Your task to perform on an android device: turn off location history Image 0: 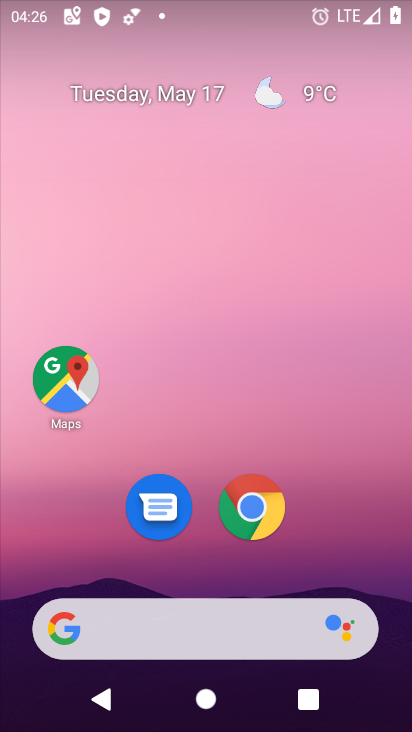
Step 0: drag from (331, 557) to (204, 42)
Your task to perform on an android device: turn off location history Image 1: 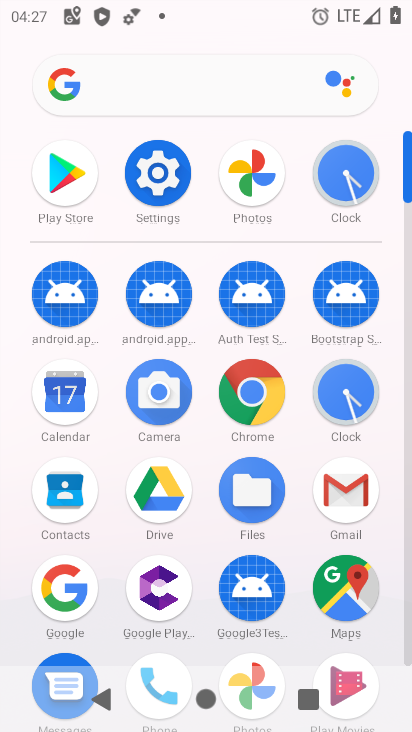
Step 1: click (163, 175)
Your task to perform on an android device: turn off location history Image 2: 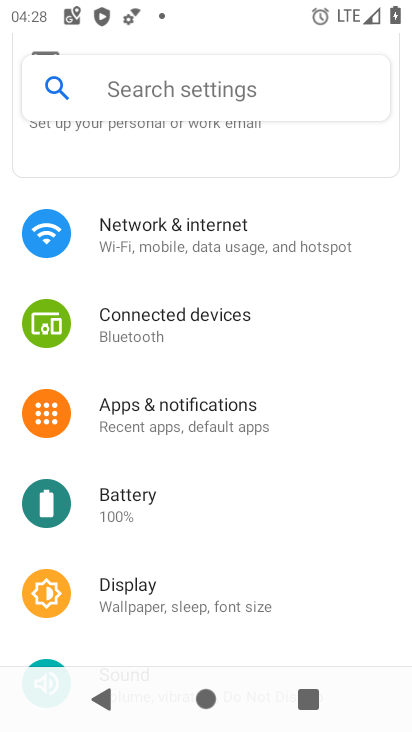
Step 2: drag from (263, 581) to (226, 145)
Your task to perform on an android device: turn off location history Image 3: 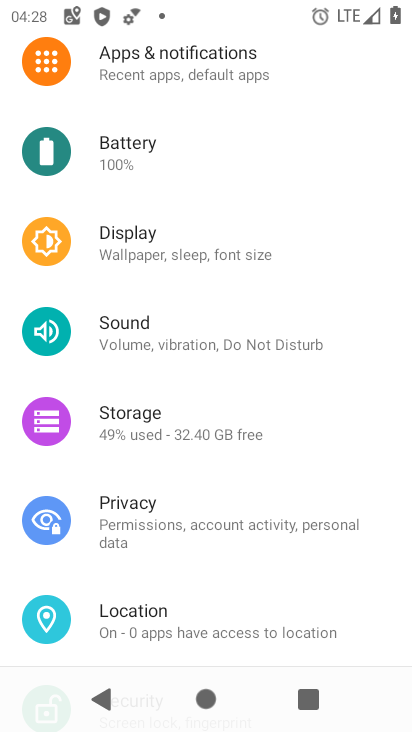
Step 3: click (198, 626)
Your task to perform on an android device: turn off location history Image 4: 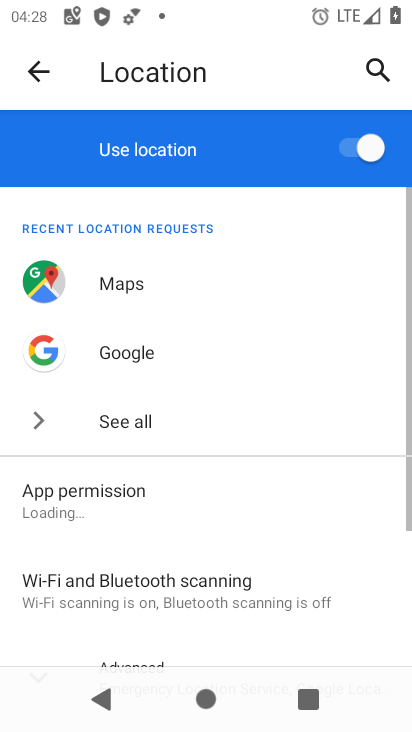
Step 4: drag from (205, 361) to (209, 150)
Your task to perform on an android device: turn off location history Image 5: 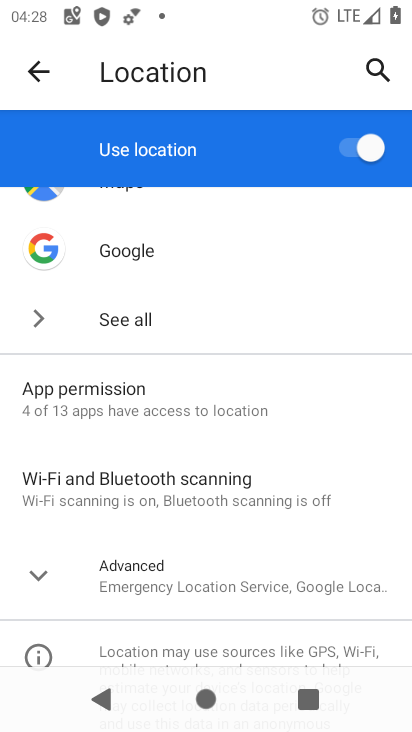
Step 5: click (222, 578)
Your task to perform on an android device: turn off location history Image 6: 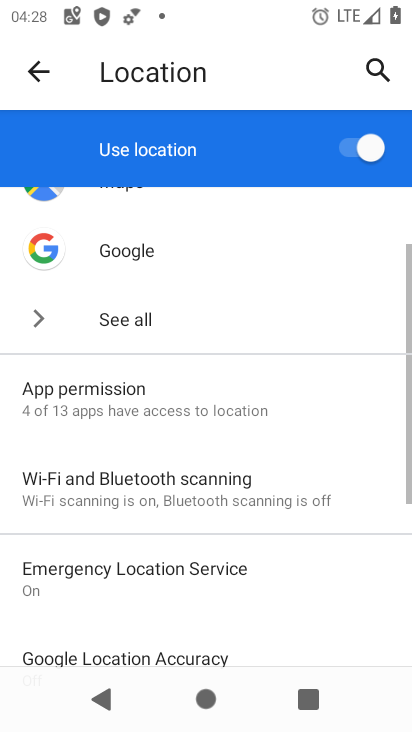
Step 6: drag from (268, 609) to (239, 148)
Your task to perform on an android device: turn off location history Image 7: 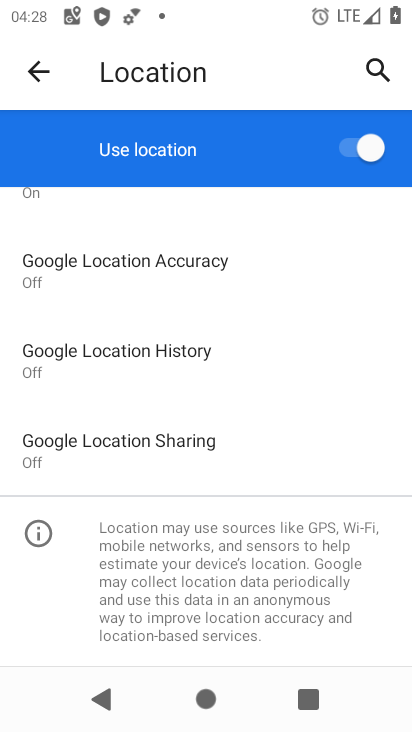
Step 7: click (182, 350)
Your task to perform on an android device: turn off location history Image 8: 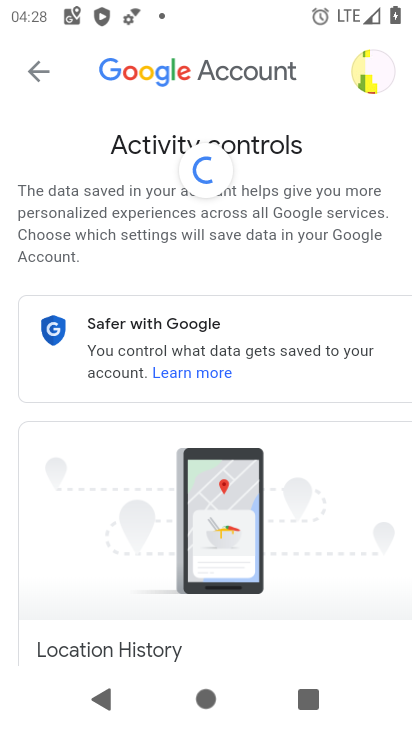
Step 8: drag from (276, 598) to (237, 183)
Your task to perform on an android device: turn off location history Image 9: 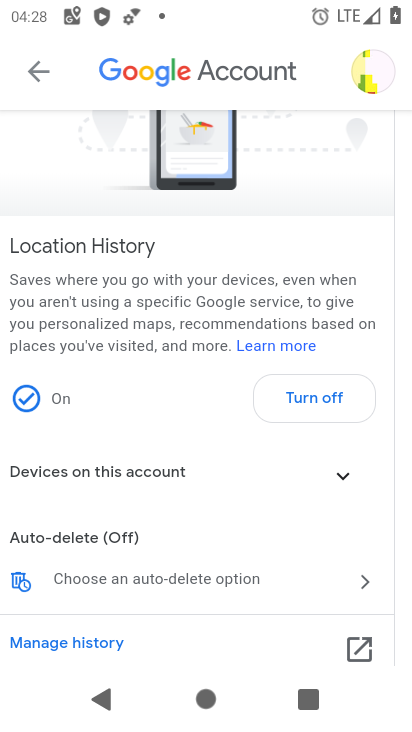
Step 9: click (318, 394)
Your task to perform on an android device: turn off location history Image 10: 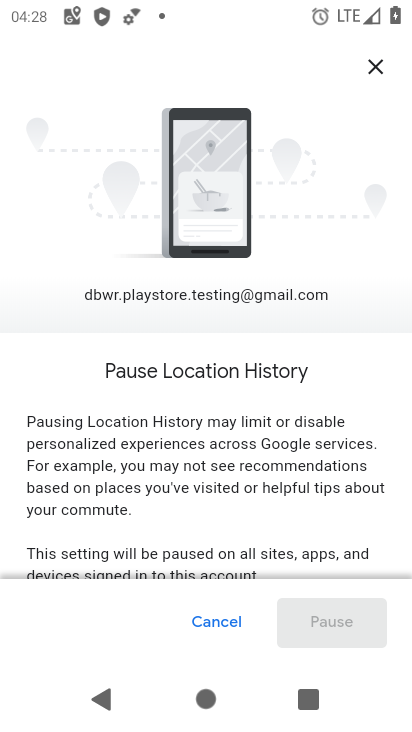
Step 10: drag from (205, 517) to (207, 114)
Your task to perform on an android device: turn off location history Image 11: 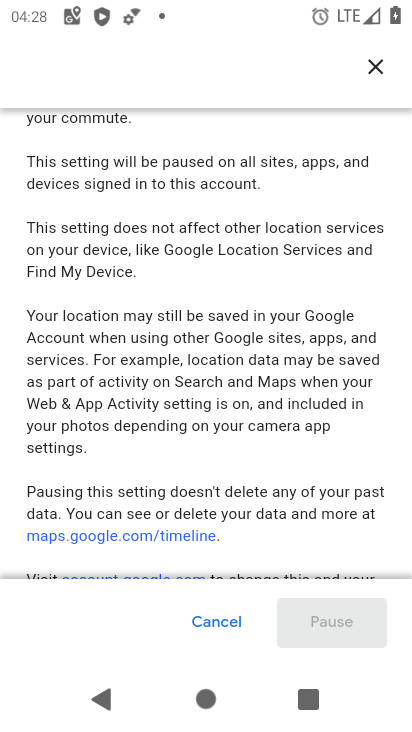
Step 11: drag from (237, 519) to (226, 87)
Your task to perform on an android device: turn off location history Image 12: 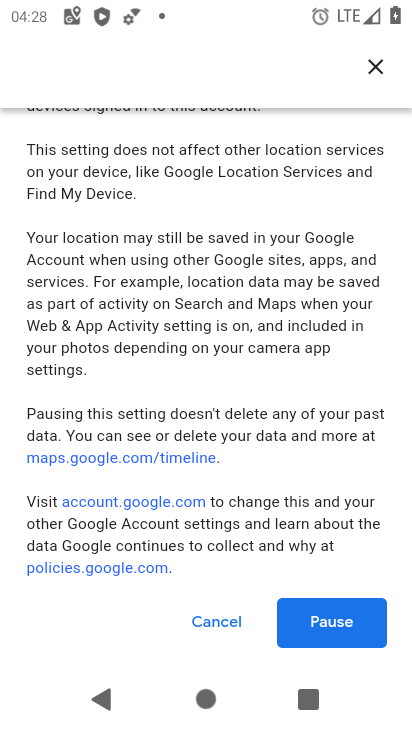
Step 12: click (340, 619)
Your task to perform on an android device: turn off location history Image 13: 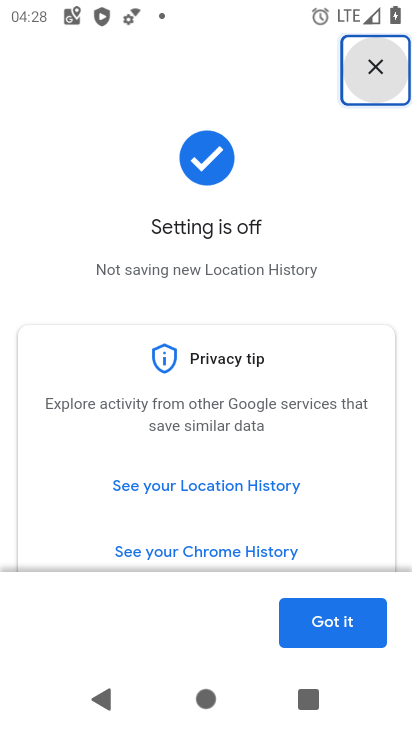
Step 13: click (325, 624)
Your task to perform on an android device: turn off location history Image 14: 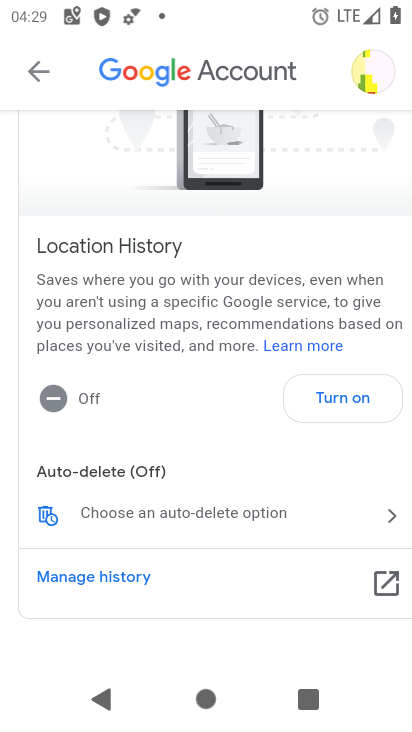
Step 14: task complete